Your task to perform on an android device: open sync settings in chrome Image 0: 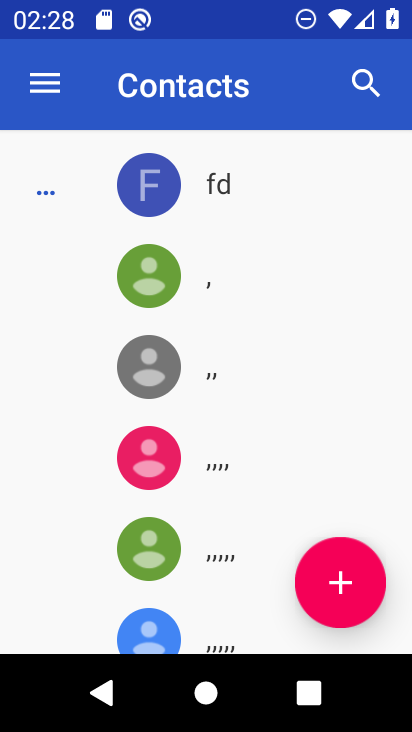
Step 0: press home button
Your task to perform on an android device: open sync settings in chrome Image 1: 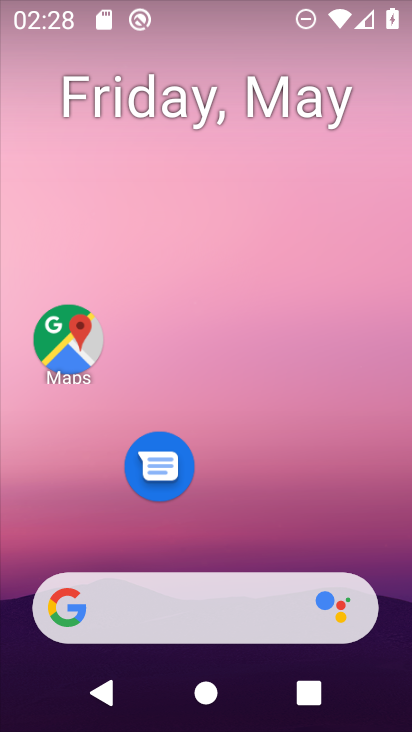
Step 1: drag from (263, 516) to (349, 126)
Your task to perform on an android device: open sync settings in chrome Image 2: 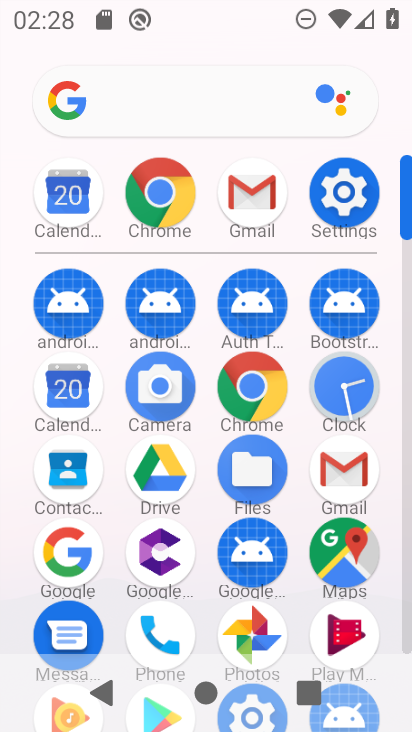
Step 2: click (155, 212)
Your task to perform on an android device: open sync settings in chrome Image 3: 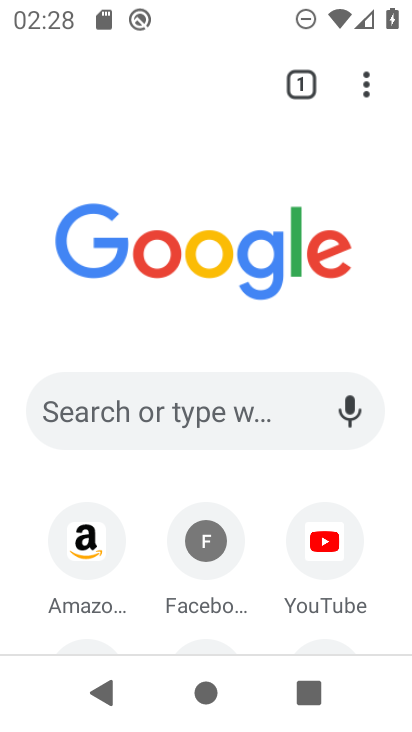
Step 3: click (374, 80)
Your task to perform on an android device: open sync settings in chrome Image 4: 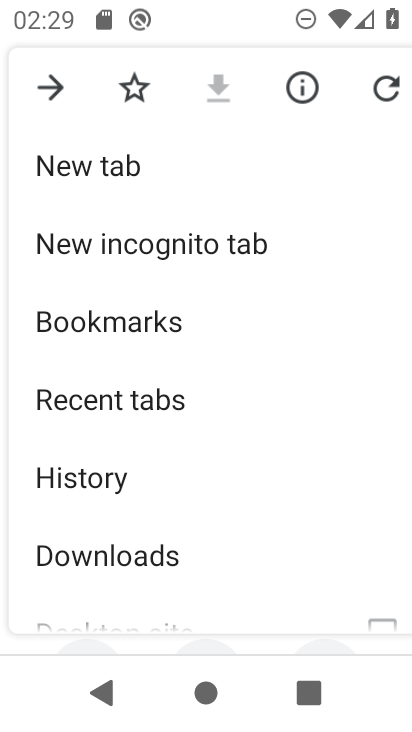
Step 4: drag from (143, 561) to (192, 349)
Your task to perform on an android device: open sync settings in chrome Image 5: 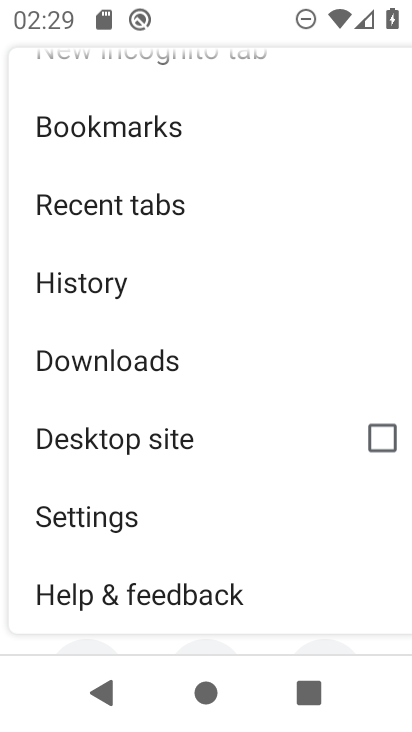
Step 5: click (184, 517)
Your task to perform on an android device: open sync settings in chrome Image 6: 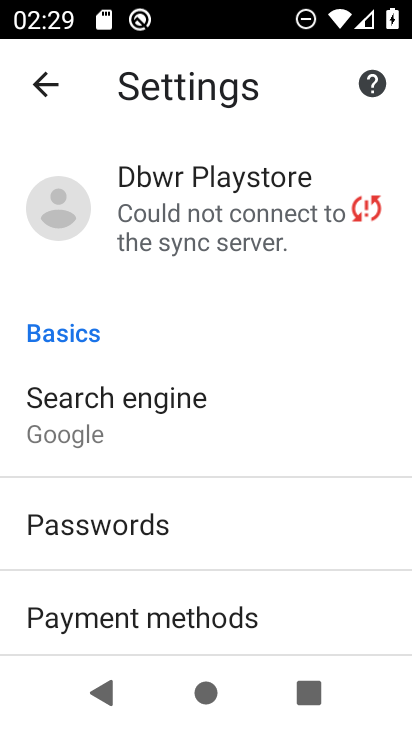
Step 6: click (209, 257)
Your task to perform on an android device: open sync settings in chrome Image 7: 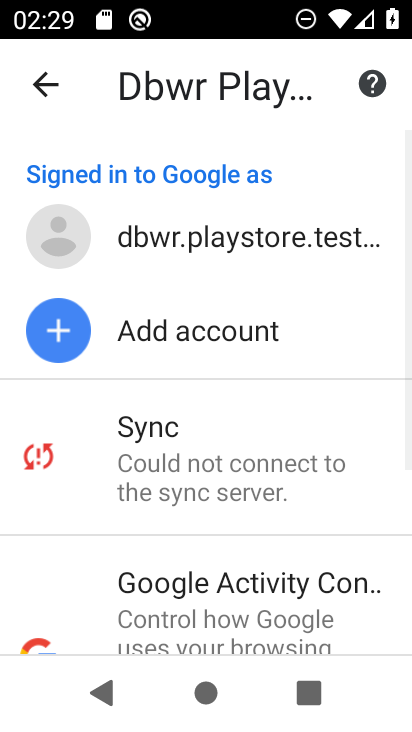
Step 7: click (223, 454)
Your task to perform on an android device: open sync settings in chrome Image 8: 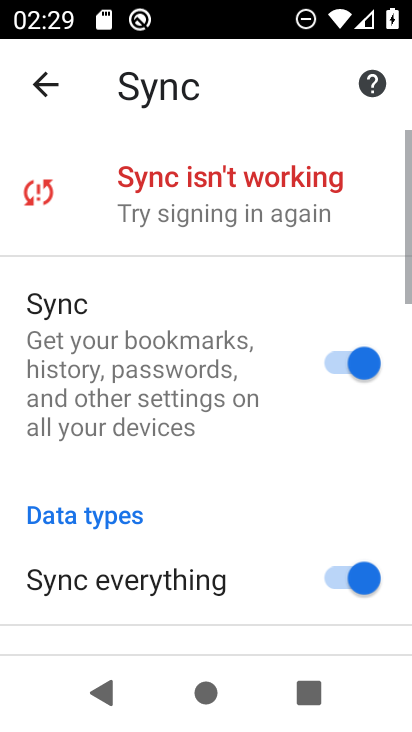
Step 8: task complete